Your task to perform on an android device: open a new tab in the chrome app Image 0: 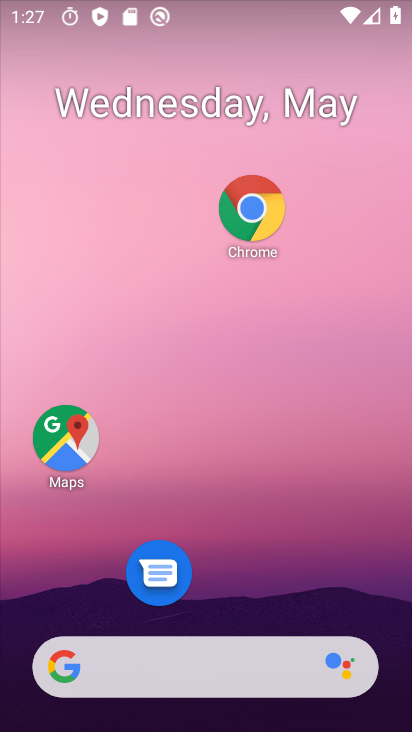
Step 0: click (261, 198)
Your task to perform on an android device: open a new tab in the chrome app Image 1: 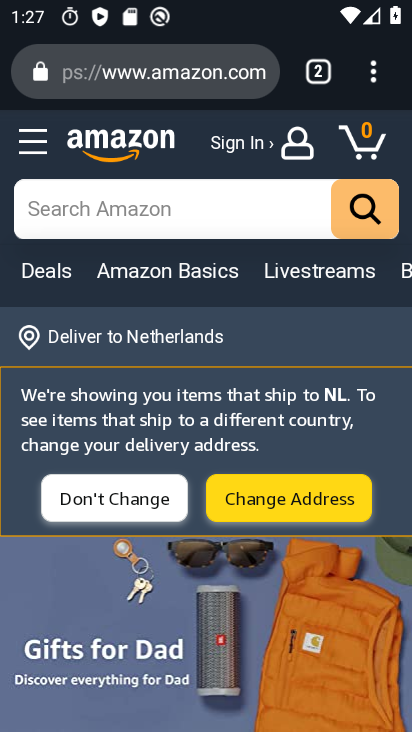
Step 1: click (322, 45)
Your task to perform on an android device: open a new tab in the chrome app Image 2: 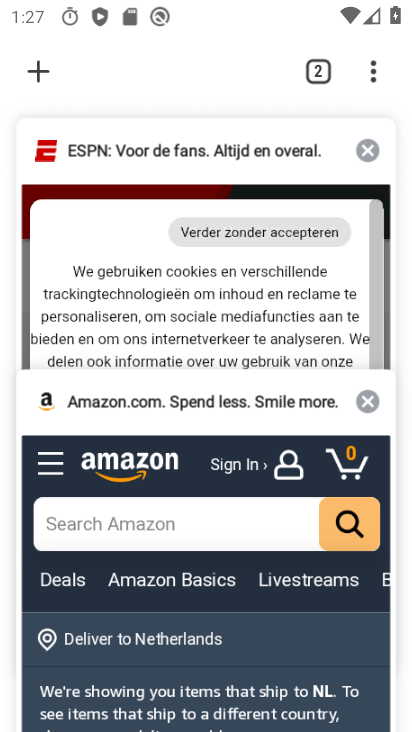
Step 2: click (35, 79)
Your task to perform on an android device: open a new tab in the chrome app Image 3: 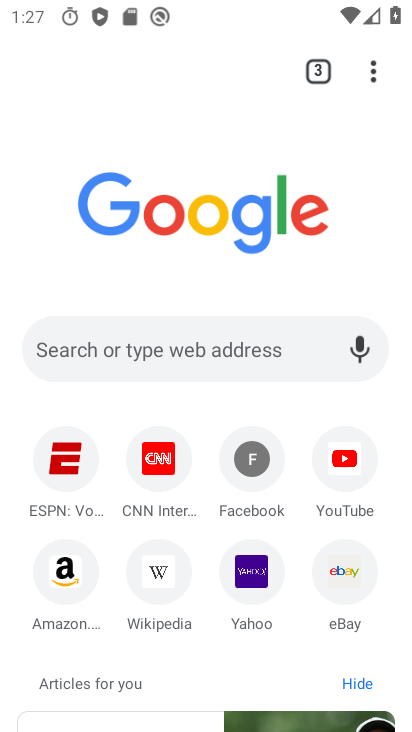
Step 3: task complete